Your task to perform on an android device: Clear all items from cart on newegg. Search for "asus zenbook" on newegg, select the first entry, and add it to the cart. Image 0: 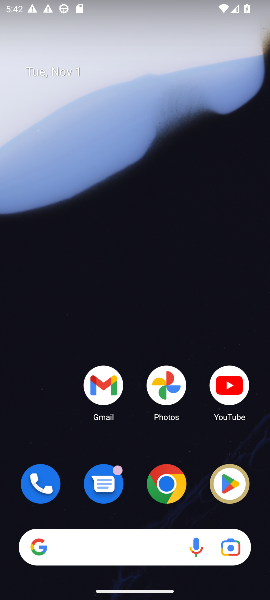
Step 0: click (166, 485)
Your task to perform on an android device: Clear all items from cart on newegg. Search for "asus zenbook" on newegg, select the first entry, and add it to the cart. Image 1: 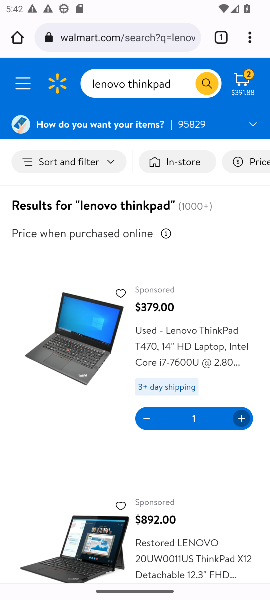
Step 1: click (113, 33)
Your task to perform on an android device: Clear all items from cart on newegg. Search for "asus zenbook" on newegg, select the first entry, and add it to the cart. Image 2: 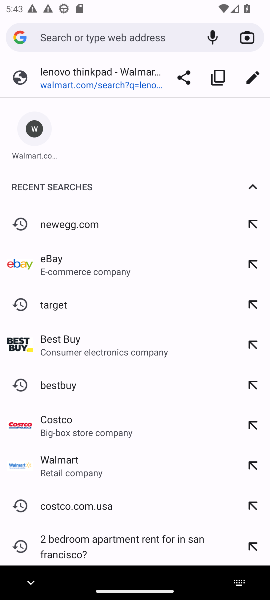
Step 2: type "newegg"
Your task to perform on an android device: Clear all items from cart on newegg. Search for "asus zenbook" on newegg, select the first entry, and add it to the cart. Image 3: 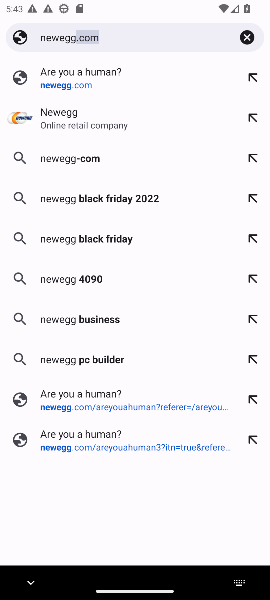
Step 3: click (104, 118)
Your task to perform on an android device: Clear all items from cart on newegg. Search for "asus zenbook" on newegg, select the first entry, and add it to the cart. Image 4: 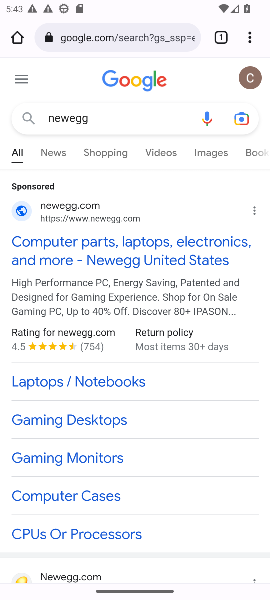
Step 4: click (93, 252)
Your task to perform on an android device: Clear all items from cart on newegg. Search for "asus zenbook" on newegg, select the first entry, and add it to the cart. Image 5: 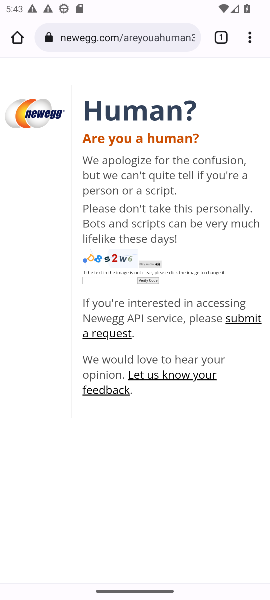
Step 5: press back button
Your task to perform on an android device: Clear all items from cart on newegg. Search for "asus zenbook" on newegg, select the first entry, and add it to the cart. Image 6: 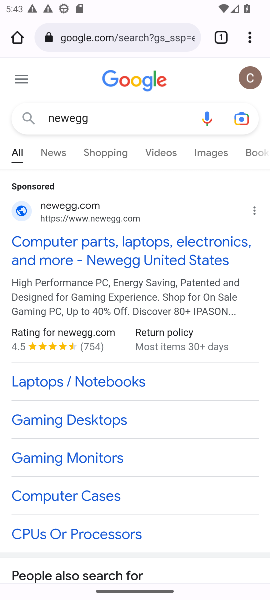
Step 6: drag from (109, 509) to (120, 409)
Your task to perform on an android device: Clear all items from cart on newegg. Search for "asus zenbook" on newegg, select the first entry, and add it to the cart. Image 7: 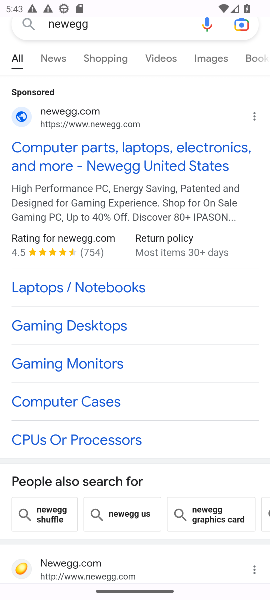
Step 7: click (81, 568)
Your task to perform on an android device: Clear all items from cart on newegg. Search for "asus zenbook" on newegg, select the first entry, and add it to the cart. Image 8: 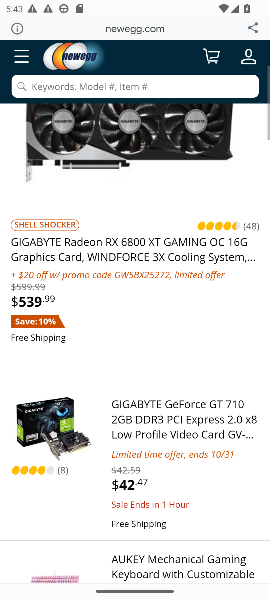
Step 8: click (99, 85)
Your task to perform on an android device: Clear all items from cart on newegg. Search for "asus zenbook" on newegg, select the first entry, and add it to the cart. Image 9: 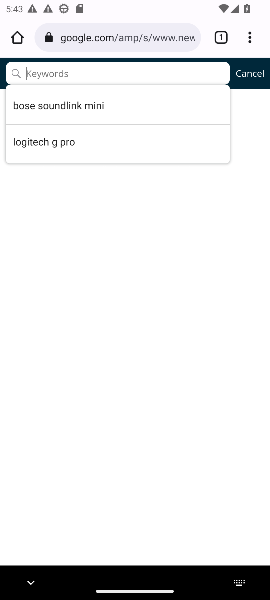
Step 9: type "asus zenbook"
Your task to perform on an android device: Clear all items from cart on newegg. Search for "asus zenbook" on newegg, select the first entry, and add it to the cart. Image 10: 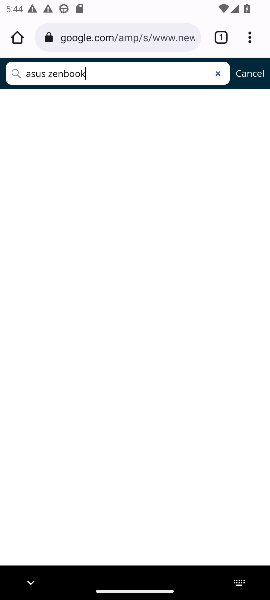
Step 10: click (83, 122)
Your task to perform on an android device: Clear all items from cart on newegg. Search for "asus zenbook" on newegg, select the first entry, and add it to the cart. Image 11: 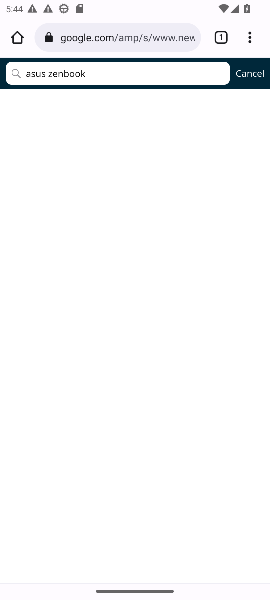
Step 11: task complete